Your task to perform on an android device: create a new album in the google photos Image 0: 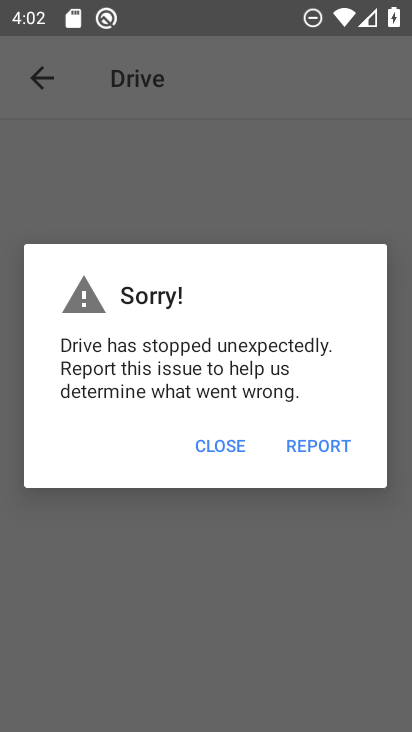
Step 0: press home button
Your task to perform on an android device: create a new album in the google photos Image 1: 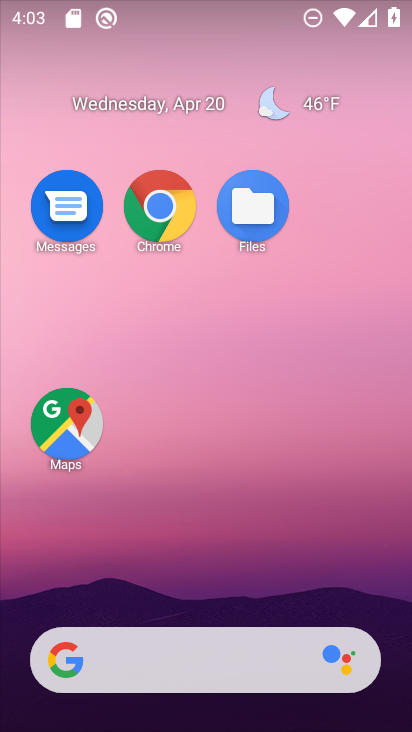
Step 1: drag from (178, 512) to (222, 78)
Your task to perform on an android device: create a new album in the google photos Image 2: 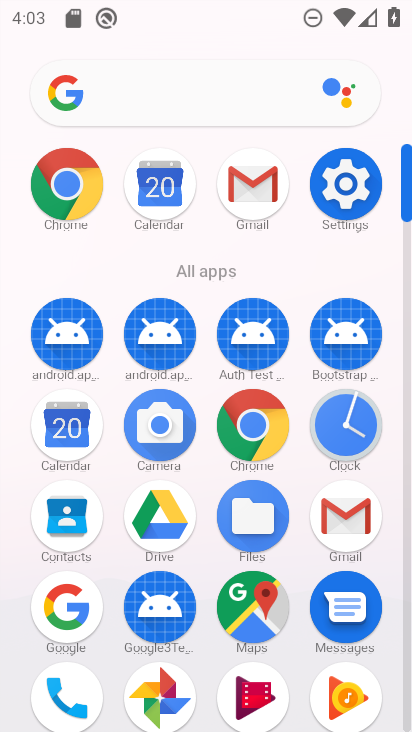
Step 2: click (154, 679)
Your task to perform on an android device: create a new album in the google photos Image 3: 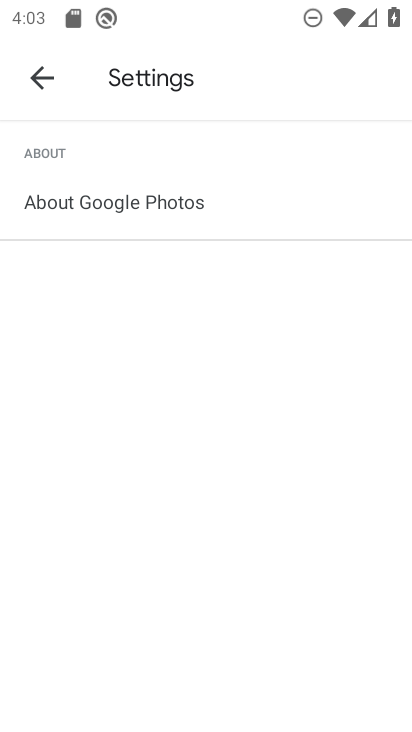
Step 3: click (33, 80)
Your task to perform on an android device: create a new album in the google photos Image 4: 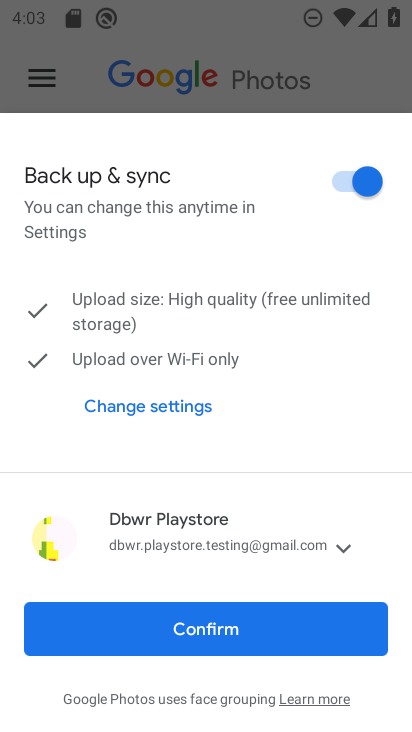
Step 4: click (158, 639)
Your task to perform on an android device: create a new album in the google photos Image 5: 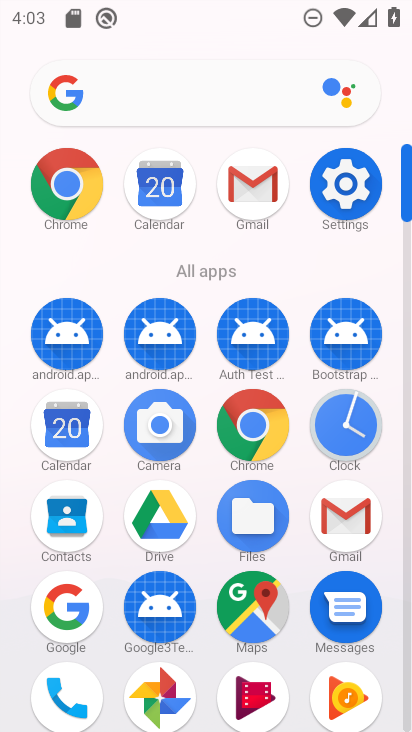
Step 5: click (157, 694)
Your task to perform on an android device: create a new album in the google photos Image 6: 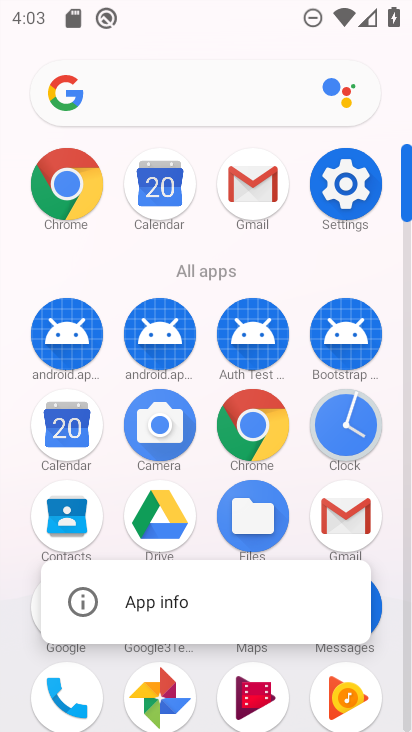
Step 6: click (160, 691)
Your task to perform on an android device: create a new album in the google photos Image 7: 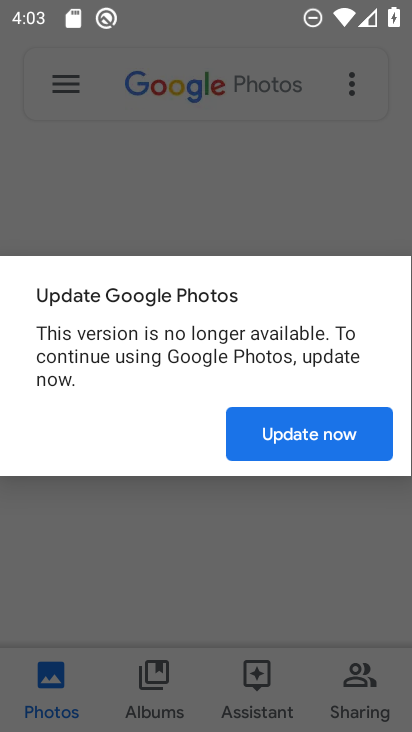
Step 7: click (302, 442)
Your task to perform on an android device: create a new album in the google photos Image 8: 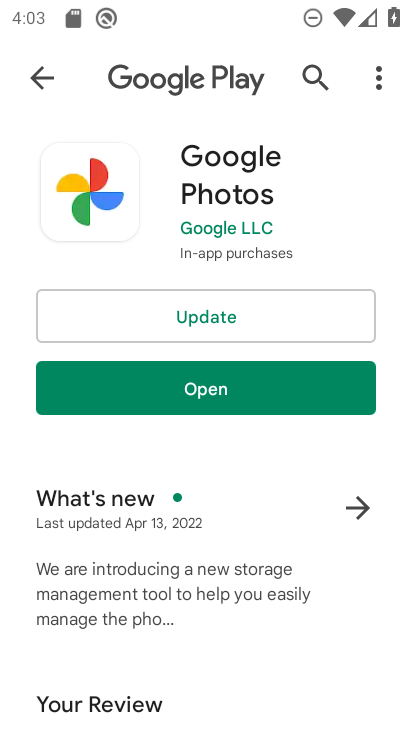
Step 8: click (142, 378)
Your task to perform on an android device: create a new album in the google photos Image 9: 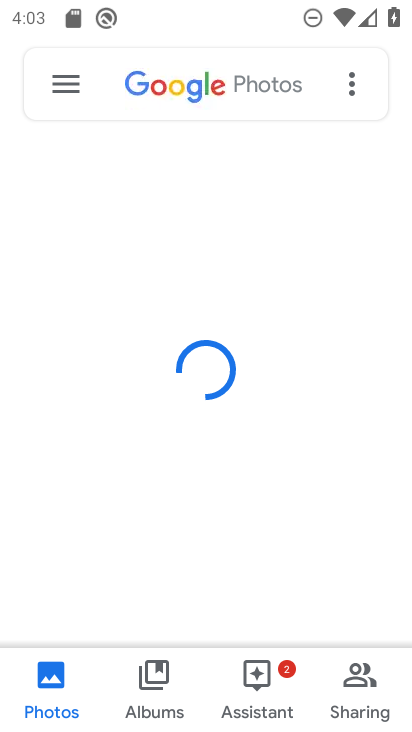
Step 9: click (152, 694)
Your task to perform on an android device: create a new album in the google photos Image 10: 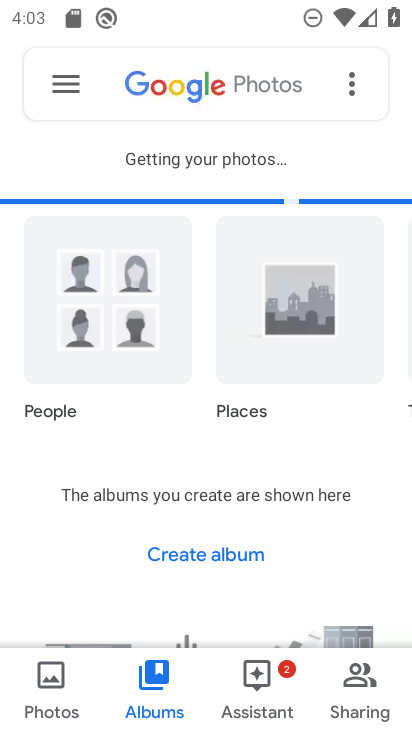
Step 10: click (203, 555)
Your task to perform on an android device: create a new album in the google photos Image 11: 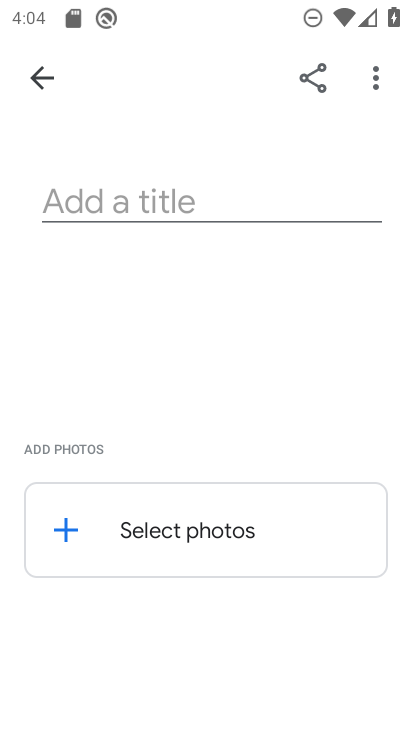
Step 11: click (205, 201)
Your task to perform on an android device: create a new album in the google photos Image 12: 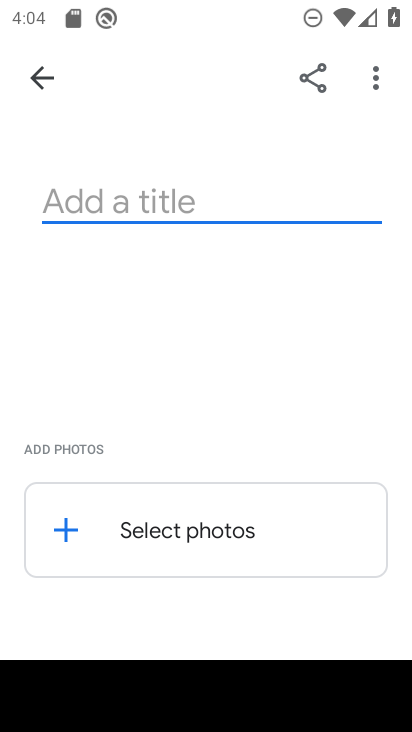
Step 12: type "__)((()))"
Your task to perform on an android device: create a new album in the google photos Image 13: 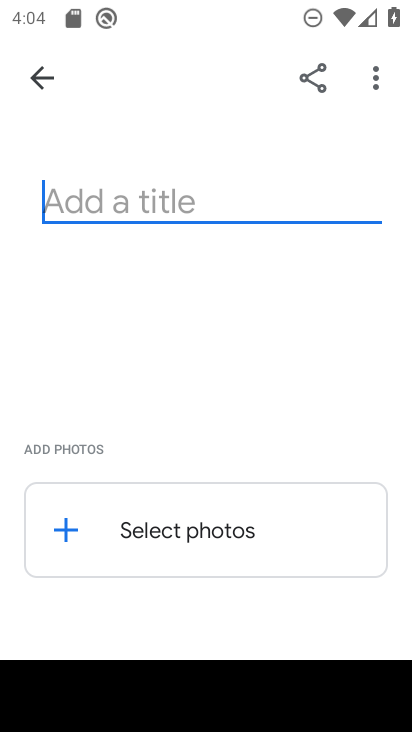
Step 13: click (52, 525)
Your task to perform on an android device: create a new album in the google photos Image 14: 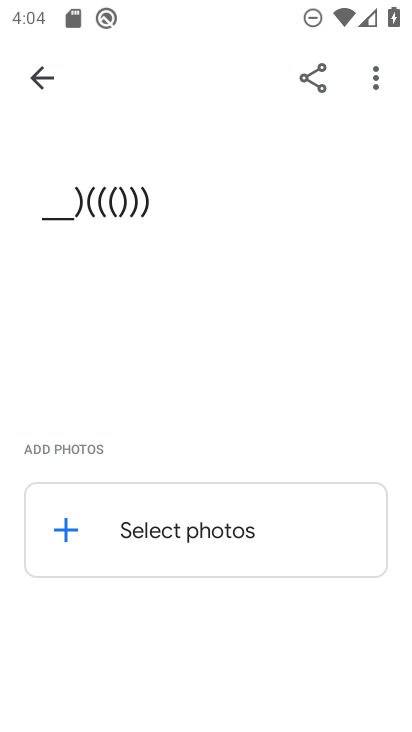
Step 14: click (61, 525)
Your task to perform on an android device: create a new album in the google photos Image 15: 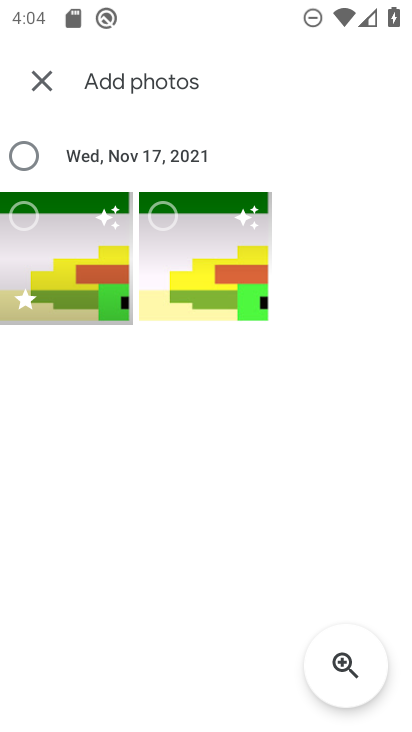
Step 15: click (26, 224)
Your task to perform on an android device: create a new album in the google photos Image 16: 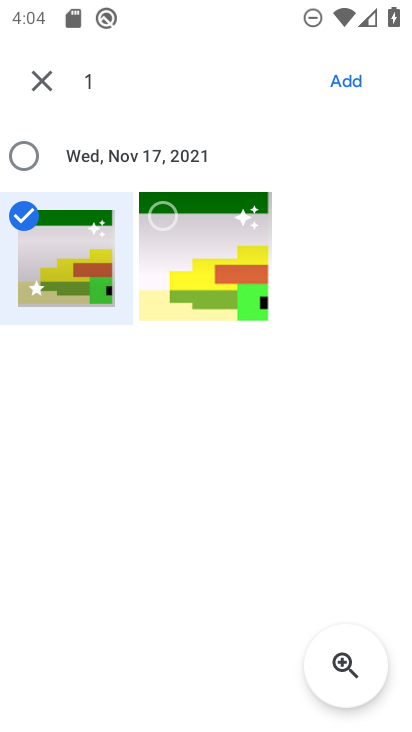
Step 16: click (174, 223)
Your task to perform on an android device: create a new album in the google photos Image 17: 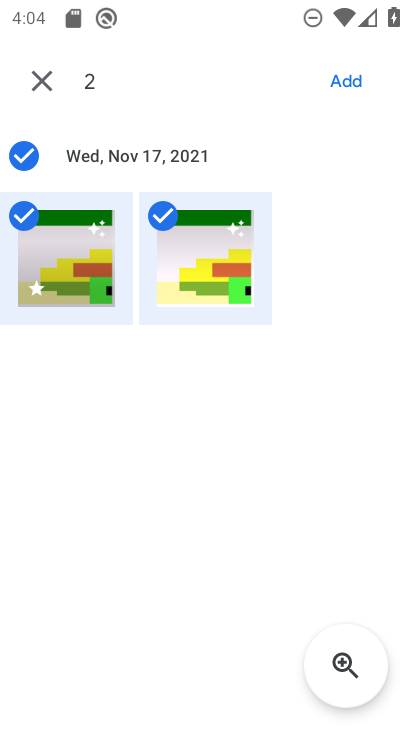
Step 17: click (355, 72)
Your task to perform on an android device: create a new album in the google photos Image 18: 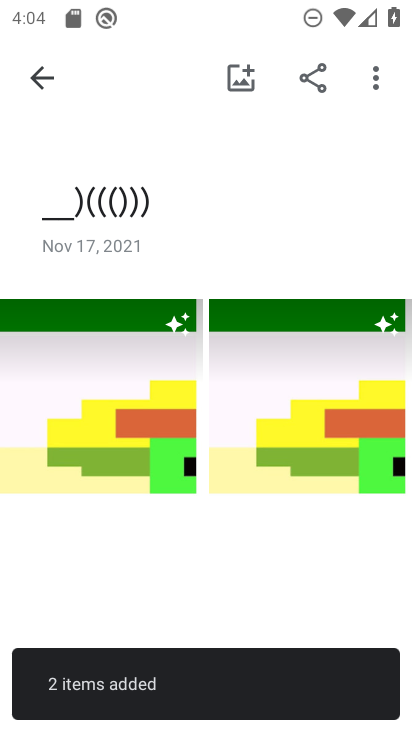
Step 18: task complete